Your task to perform on an android device: turn off wifi Image 0: 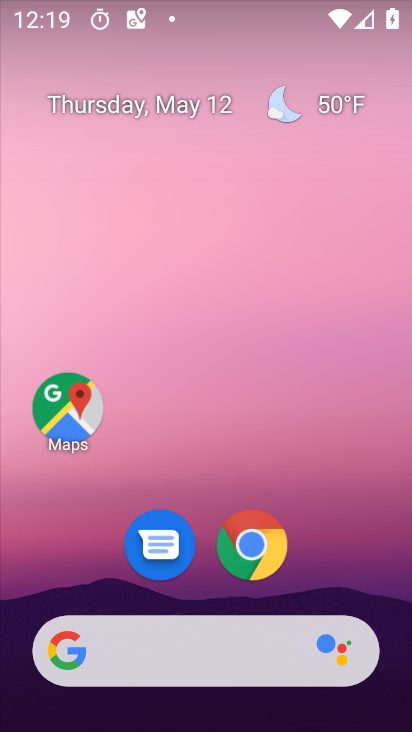
Step 0: drag from (215, 650) to (192, 48)
Your task to perform on an android device: turn off wifi Image 1: 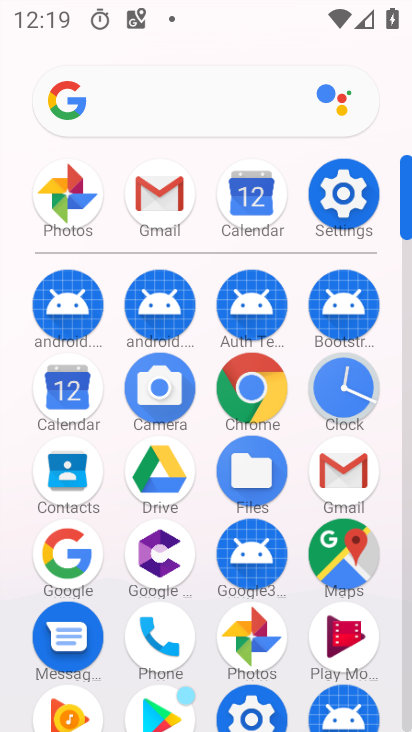
Step 1: click (349, 208)
Your task to perform on an android device: turn off wifi Image 2: 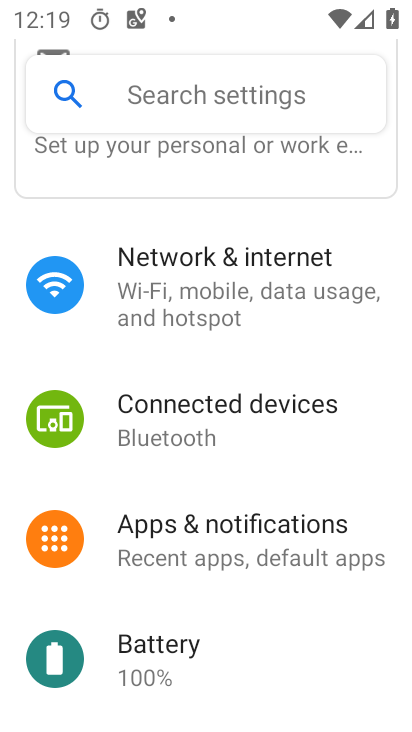
Step 2: click (273, 254)
Your task to perform on an android device: turn off wifi Image 3: 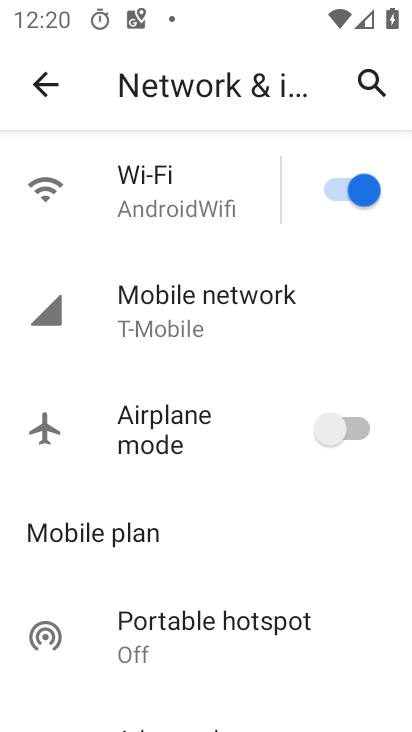
Step 3: click (336, 186)
Your task to perform on an android device: turn off wifi Image 4: 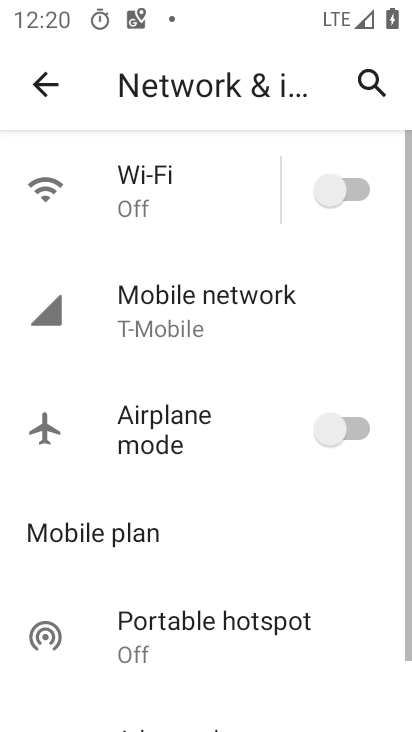
Step 4: task complete